Your task to perform on an android device: move a message to another label in the gmail app Image 0: 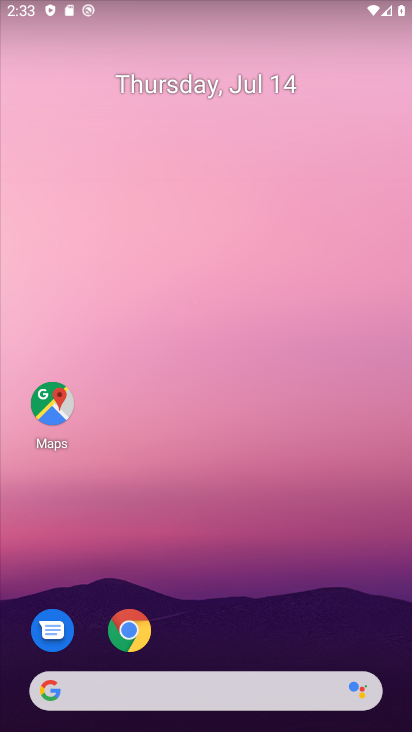
Step 0: press home button
Your task to perform on an android device: move a message to another label in the gmail app Image 1: 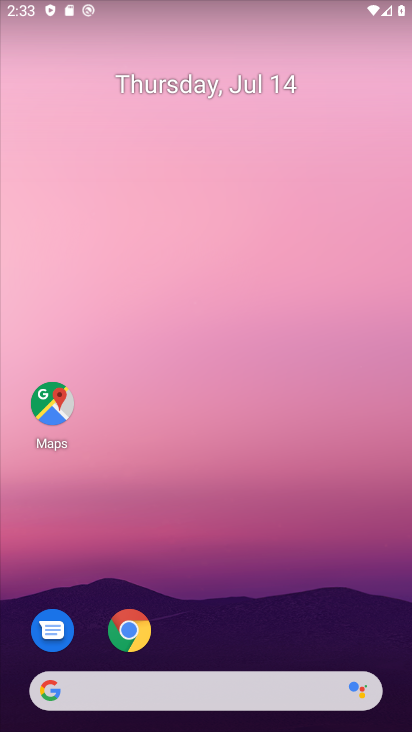
Step 1: drag from (220, 643) to (218, 113)
Your task to perform on an android device: move a message to another label in the gmail app Image 2: 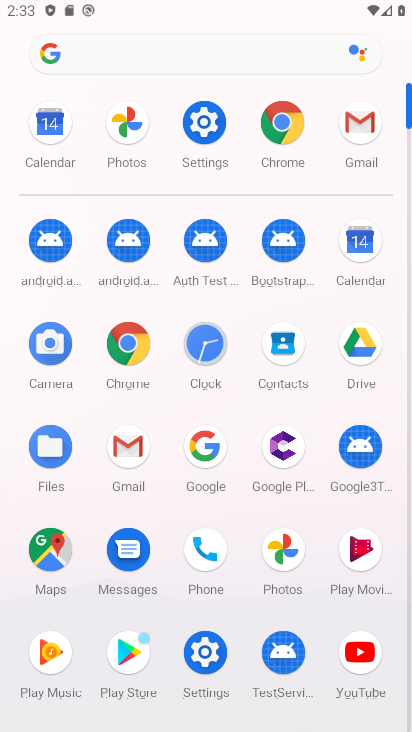
Step 2: click (124, 437)
Your task to perform on an android device: move a message to another label in the gmail app Image 3: 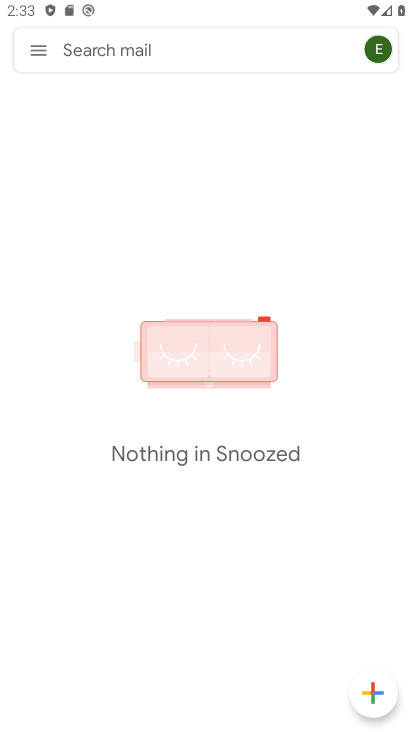
Step 3: click (26, 51)
Your task to perform on an android device: move a message to another label in the gmail app Image 4: 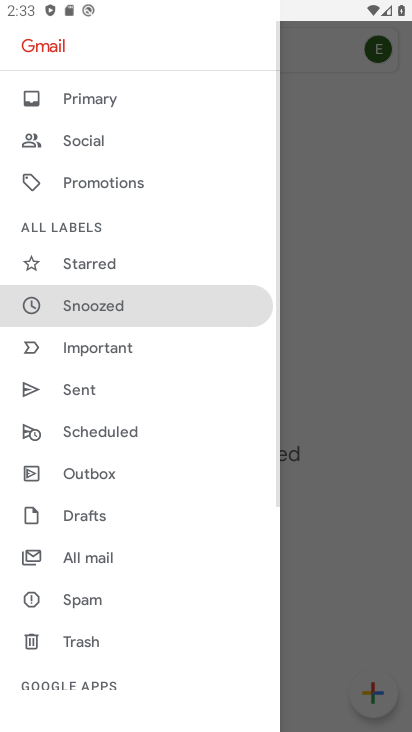
Step 4: click (93, 96)
Your task to perform on an android device: move a message to another label in the gmail app Image 5: 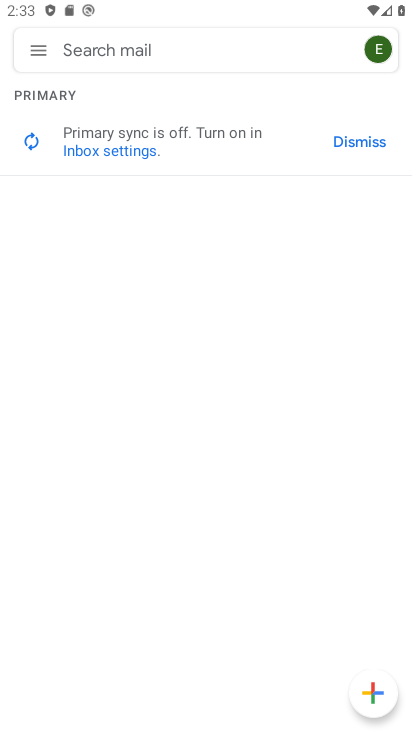
Step 5: task complete